Your task to perform on an android device: turn on bluetooth scan Image 0: 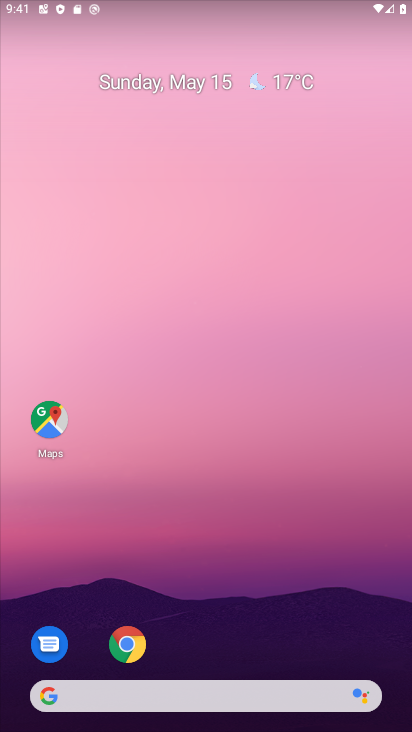
Step 0: drag from (227, 707) to (234, 265)
Your task to perform on an android device: turn on bluetooth scan Image 1: 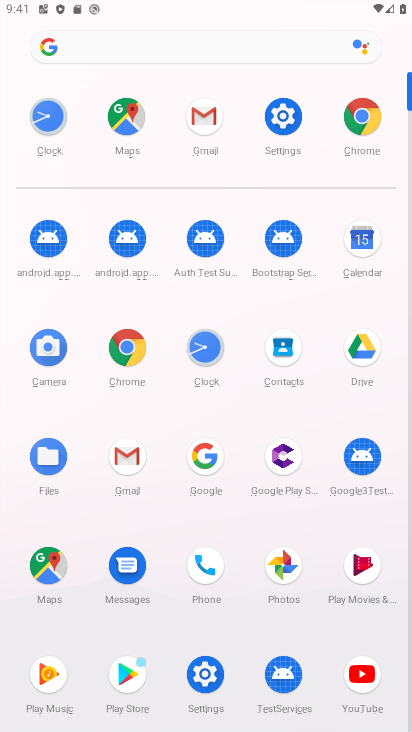
Step 1: click (289, 117)
Your task to perform on an android device: turn on bluetooth scan Image 2: 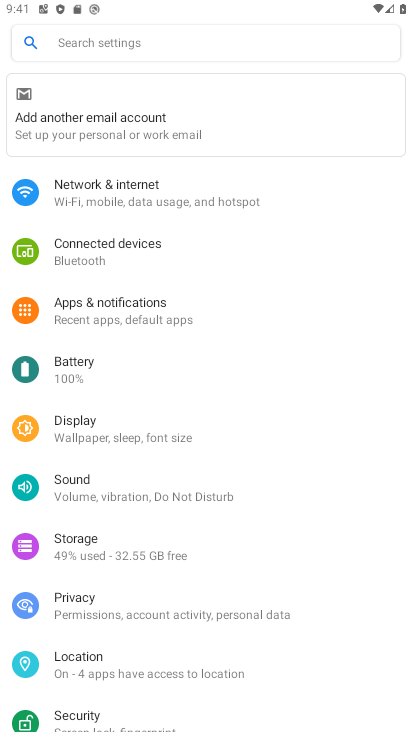
Step 2: click (131, 39)
Your task to perform on an android device: turn on bluetooth scan Image 3: 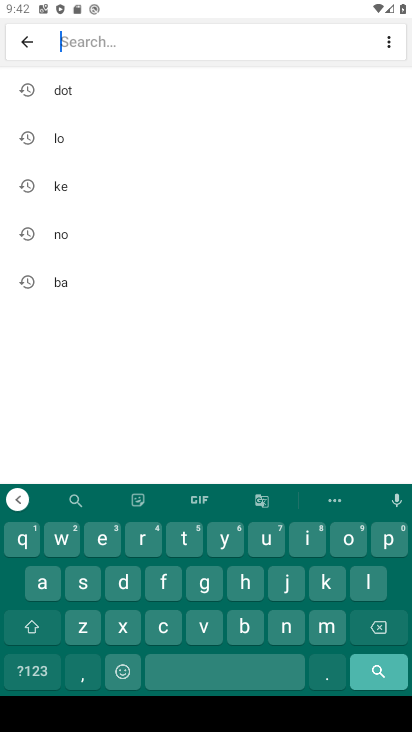
Step 3: click (60, 136)
Your task to perform on an android device: turn on bluetooth scan Image 4: 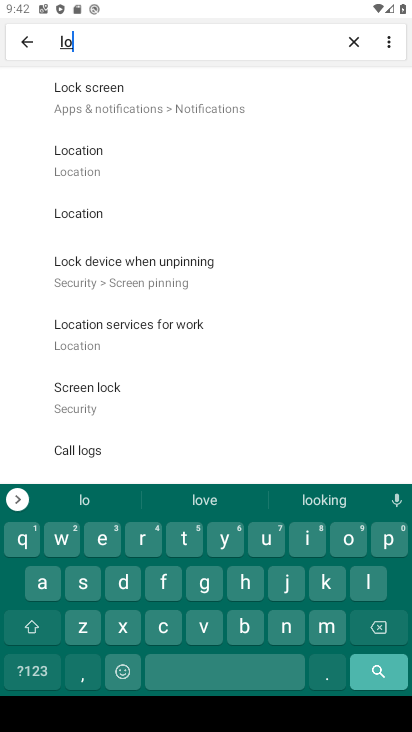
Step 4: click (121, 158)
Your task to perform on an android device: turn on bluetooth scan Image 5: 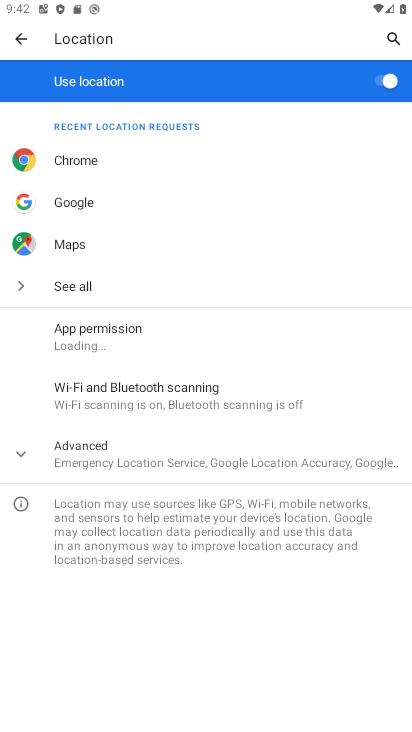
Step 5: click (213, 392)
Your task to perform on an android device: turn on bluetooth scan Image 6: 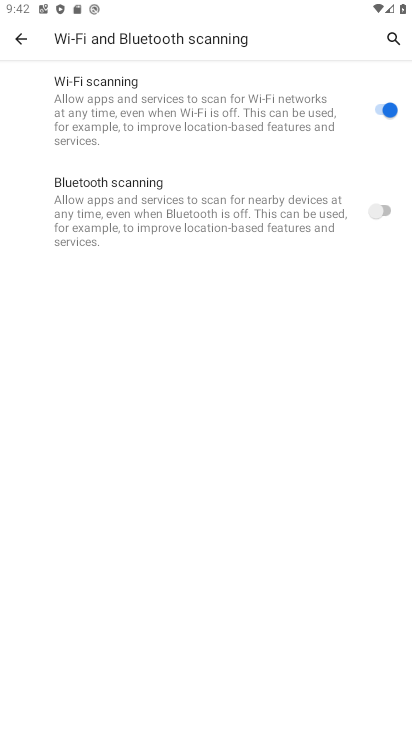
Step 6: click (235, 206)
Your task to perform on an android device: turn on bluetooth scan Image 7: 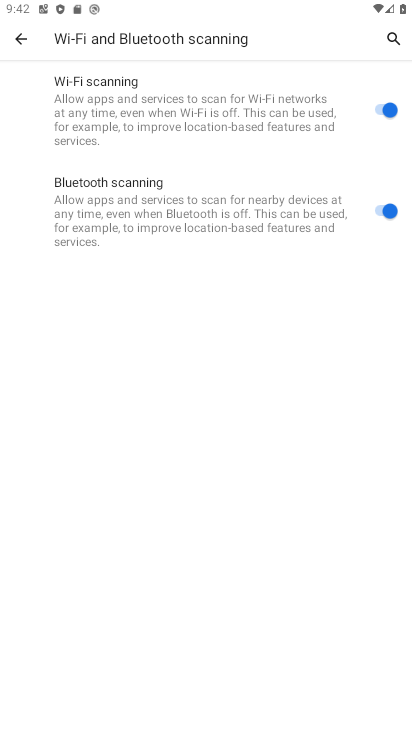
Step 7: task complete